Your task to perform on an android device: install app "Facebook" Image 0: 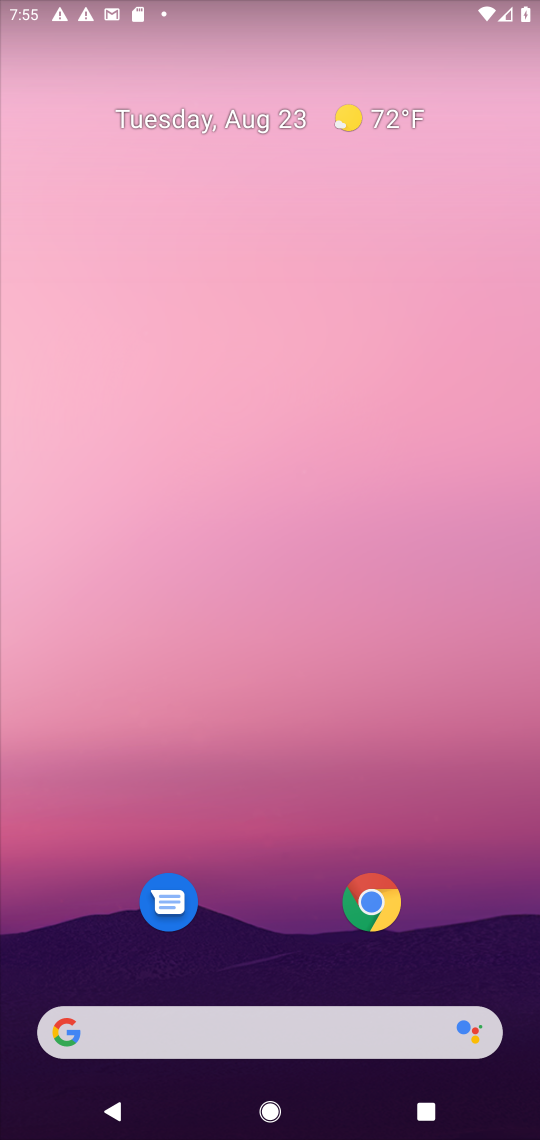
Step 0: drag from (256, 1028) to (222, 25)
Your task to perform on an android device: install app "Facebook" Image 1: 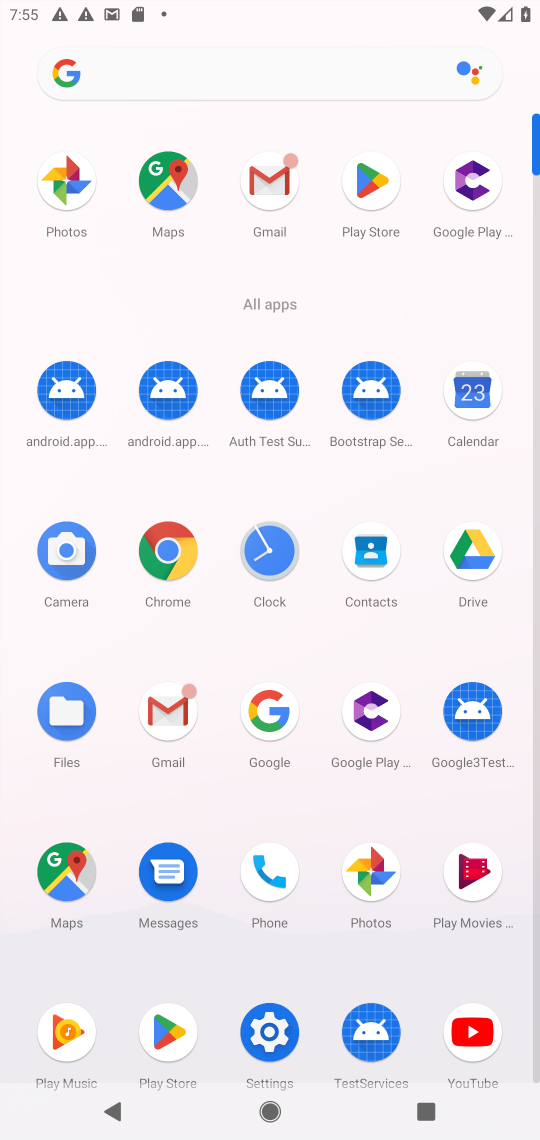
Step 1: click (402, 172)
Your task to perform on an android device: install app "Facebook" Image 2: 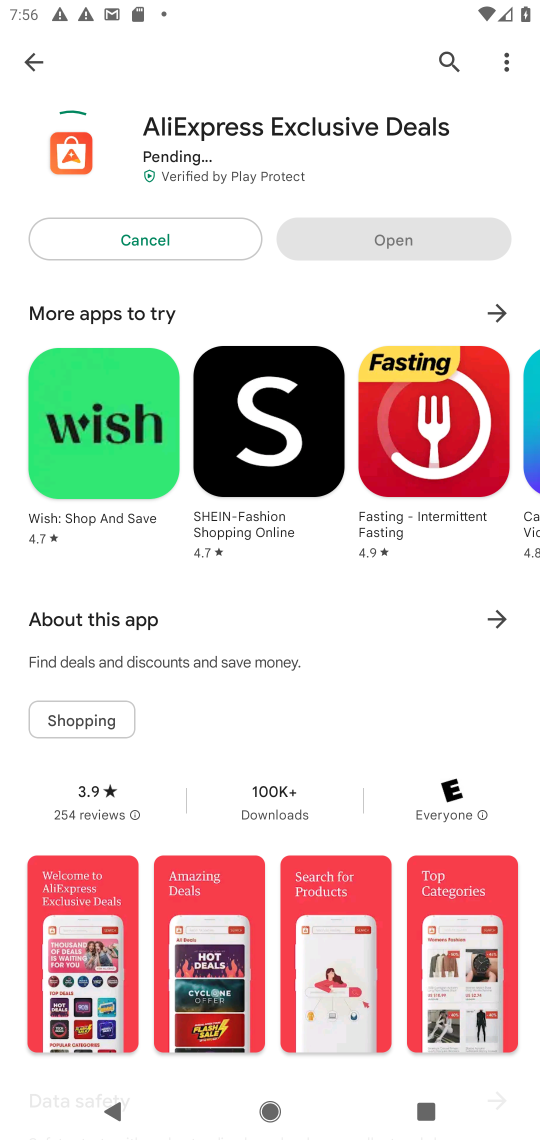
Step 2: click (449, 70)
Your task to perform on an android device: install app "Facebook" Image 3: 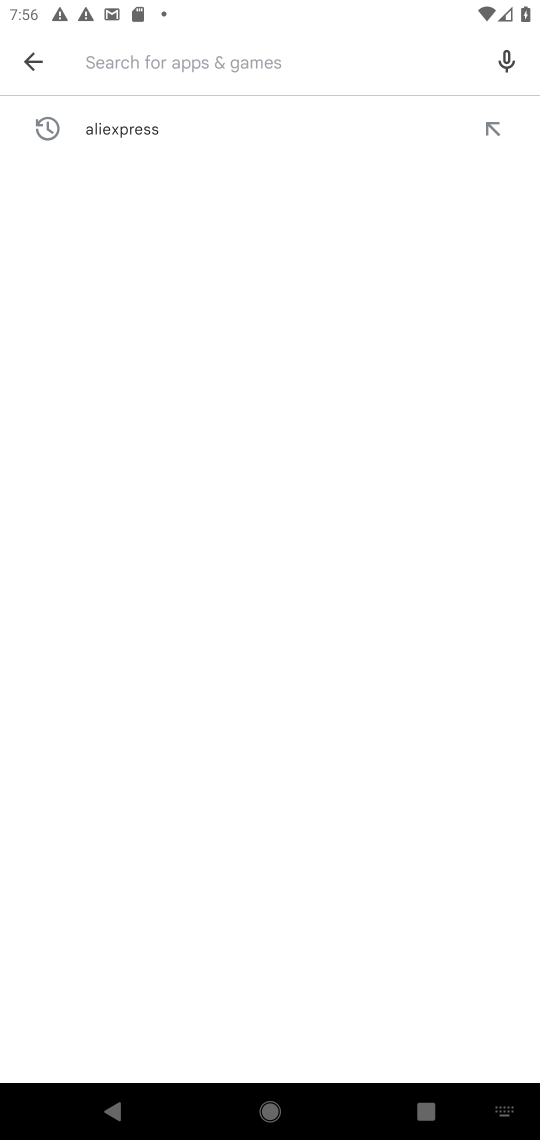
Step 3: click (386, 78)
Your task to perform on an android device: install app "Facebook" Image 4: 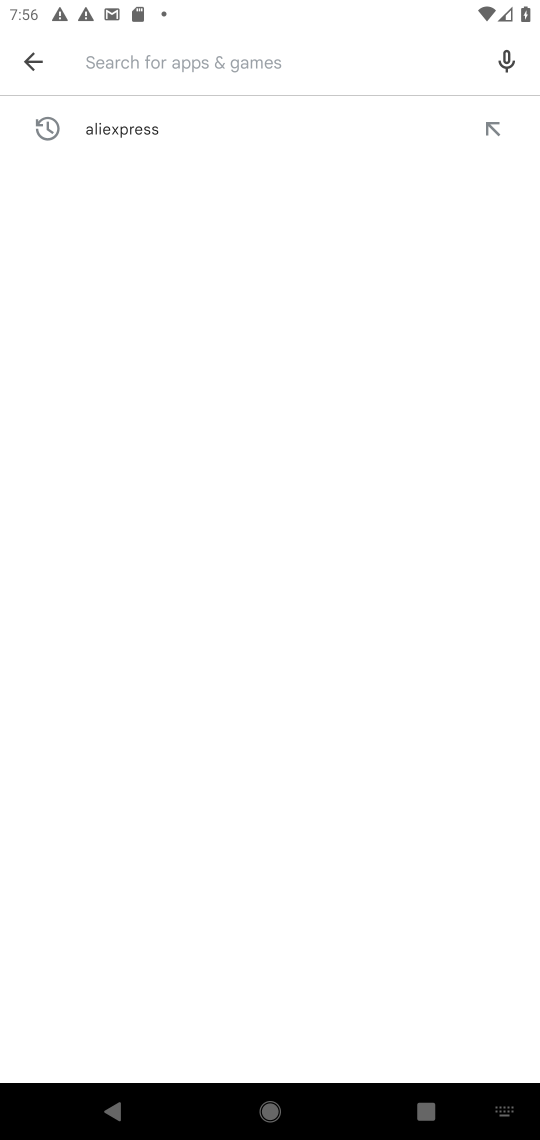
Step 4: type "facebook"
Your task to perform on an android device: install app "Facebook" Image 5: 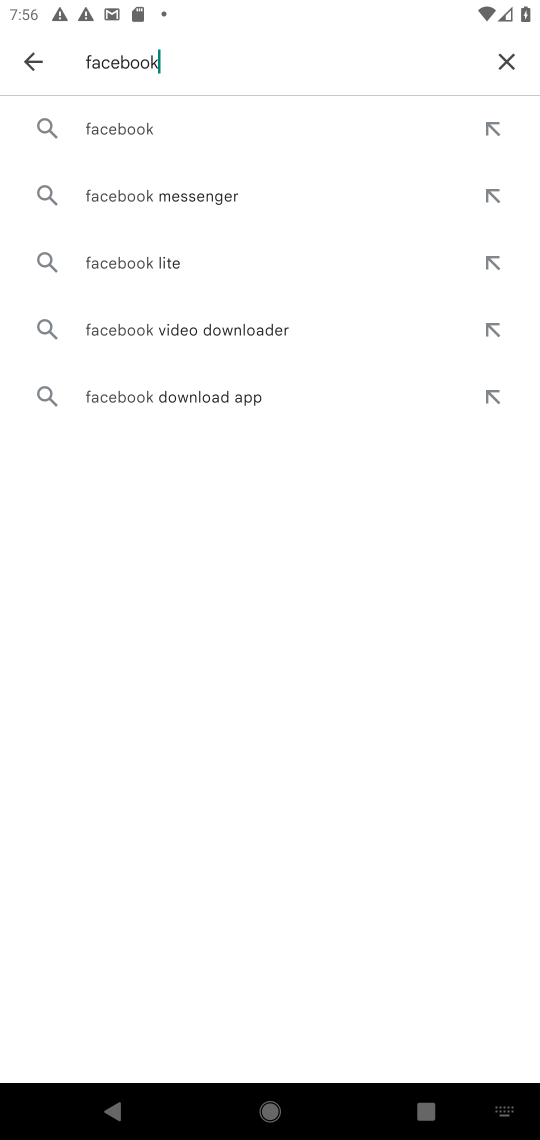
Step 5: click (164, 138)
Your task to perform on an android device: install app "Facebook" Image 6: 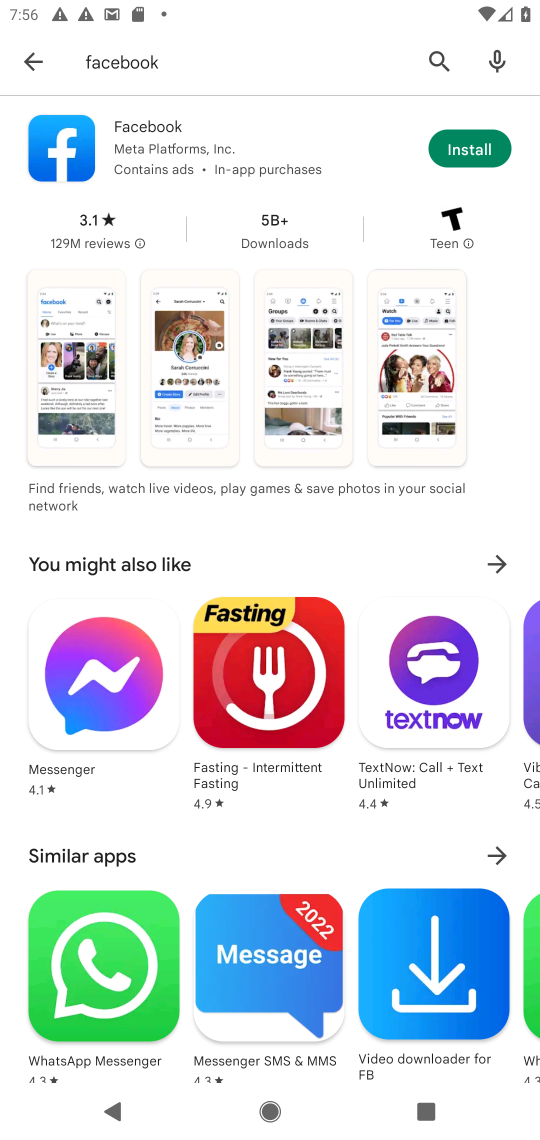
Step 6: click (479, 142)
Your task to perform on an android device: install app "Facebook" Image 7: 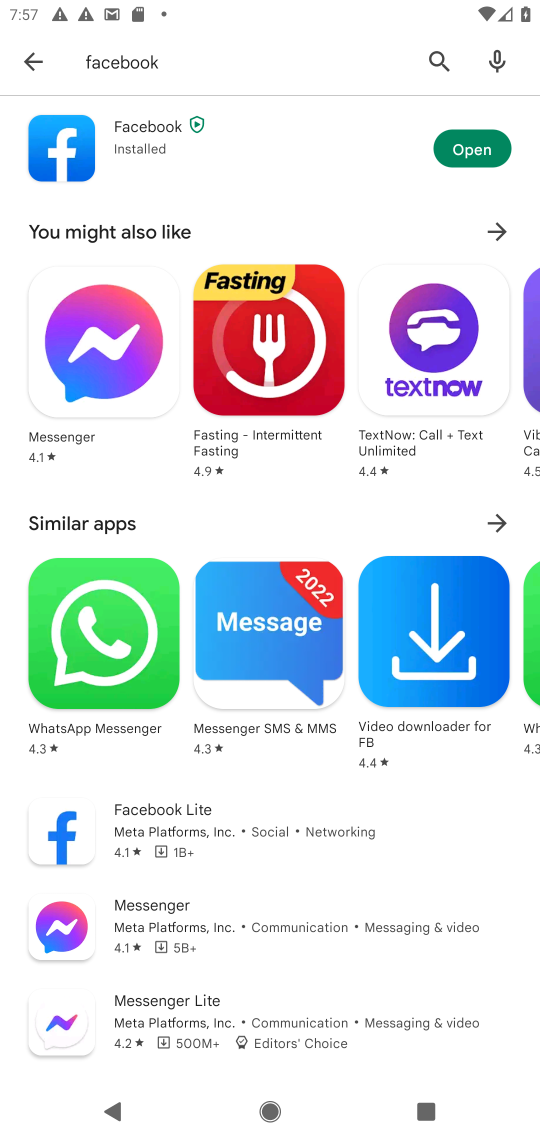
Step 7: task complete